Your task to perform on an android device: open device folders in google photos Image 0: 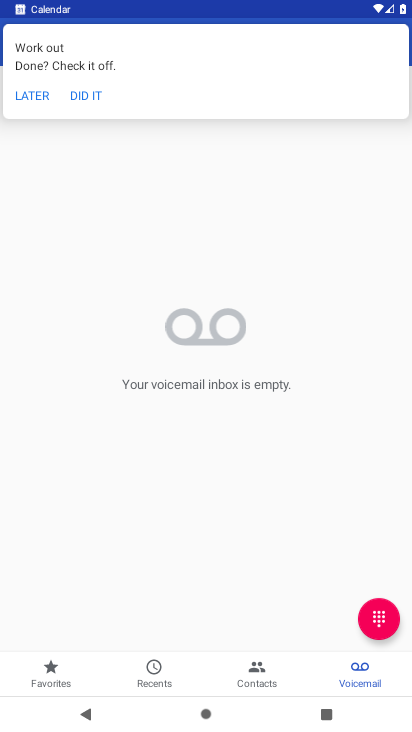
Step 0: press home button
Your task to perform on an android device: open device folders in google photos Image 1: 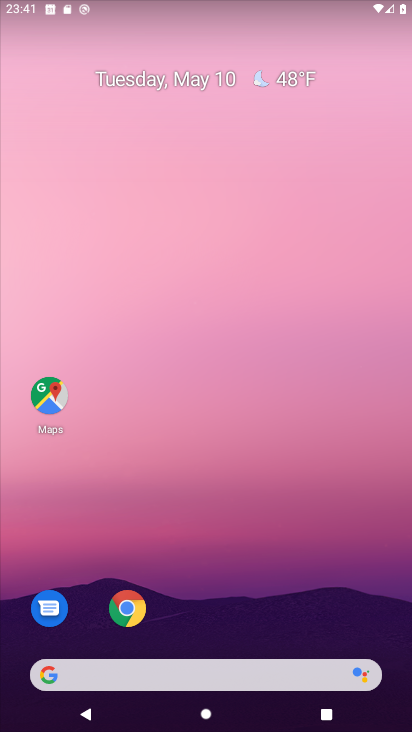
Step 1: drag from (256, 631) to (144, 390)
Your task to perform on an android device: open device folders in google photos Image 2: 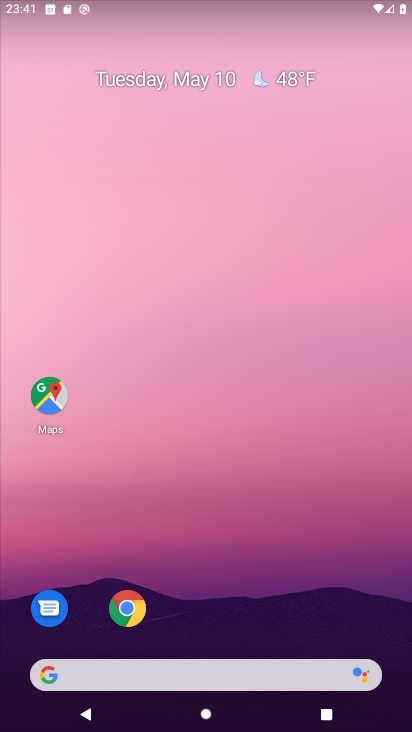
Step 2: drag from (253, 631) to (195, 102)
Your task to perform on an android device: open device folders in google photos Image 3: 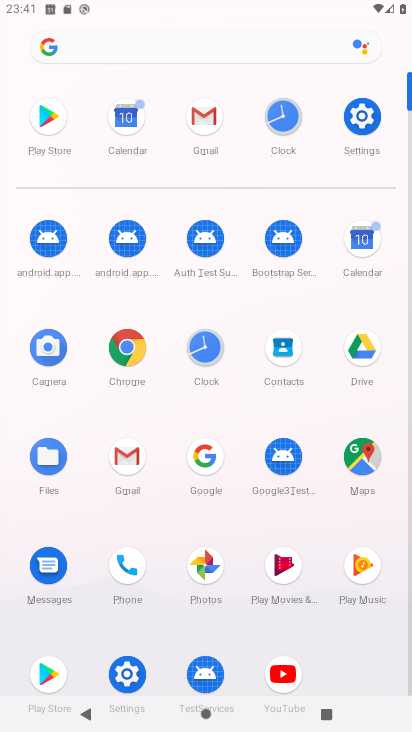
Step 3: click (203, 567)
Your task to perform on an android device: open device folders in google photos Image 4: 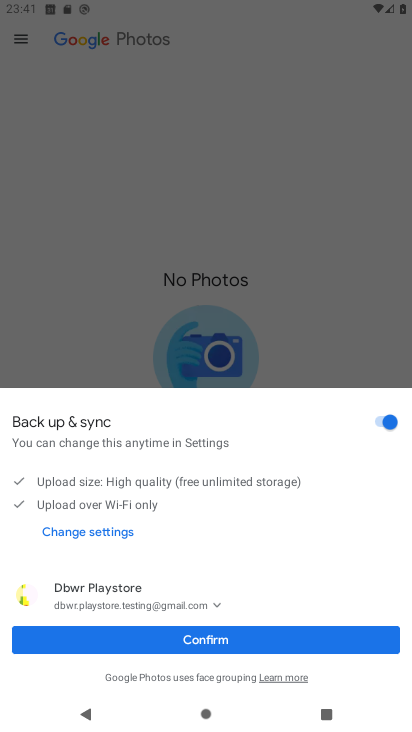
Step 4: click (399, 419)
Your task to perform on an android device: open device folders in google photos Image 5: 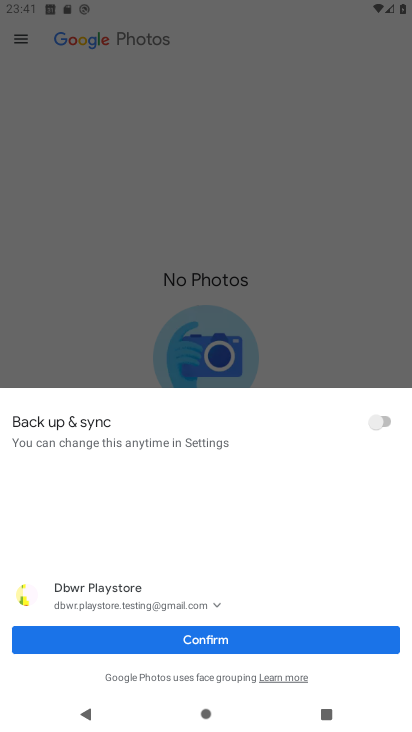
Step 5: click (382, 416)
Your task to perform on an android device: open device folders in google photos Image 6: 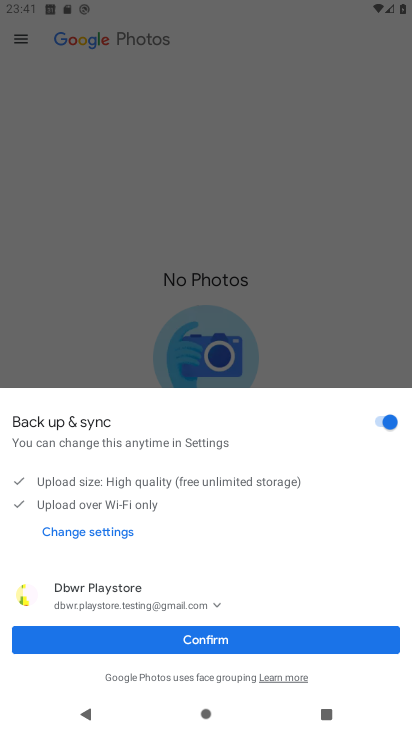
Step 6: click (257, 650)
Your task to perform on an android device: open device folders in google photos Image 7: 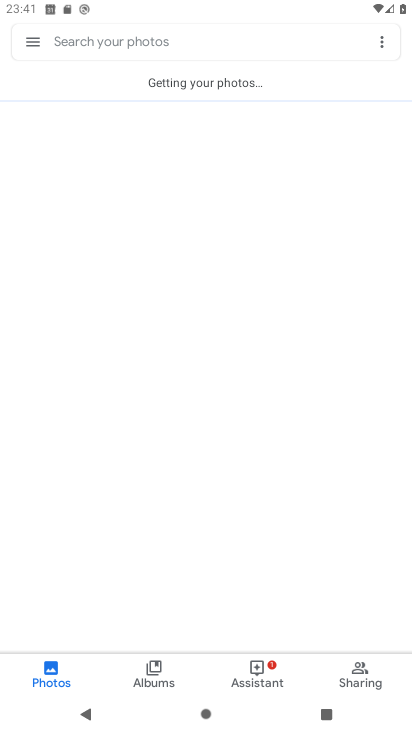
Step 7: click (30, 38)
Your task to perform on an android device: open device folders in google photos Image 8: 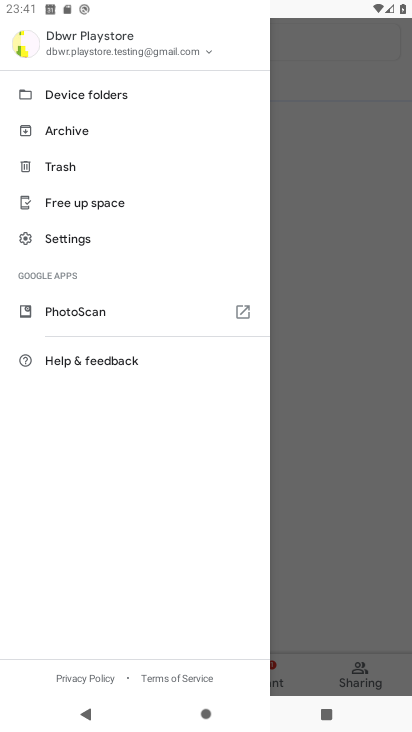
Step 8: click (57, 98)
Your task to perform on an android device: open device folders in google photos Image 9: 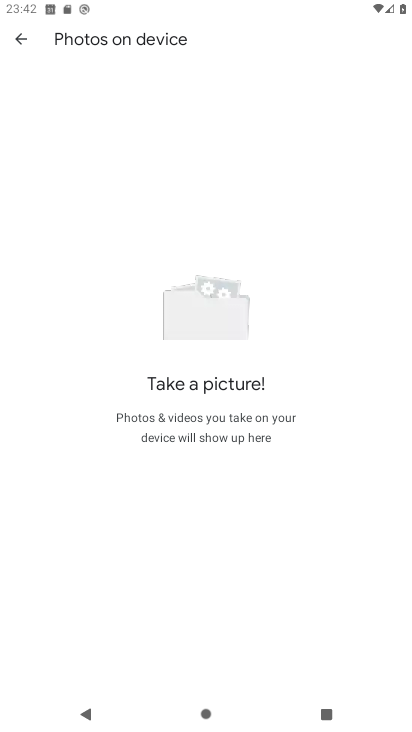
Step 9: task complete